Your task to perform on an android device: Open Google Maps and go to "Timeline" Image 0: 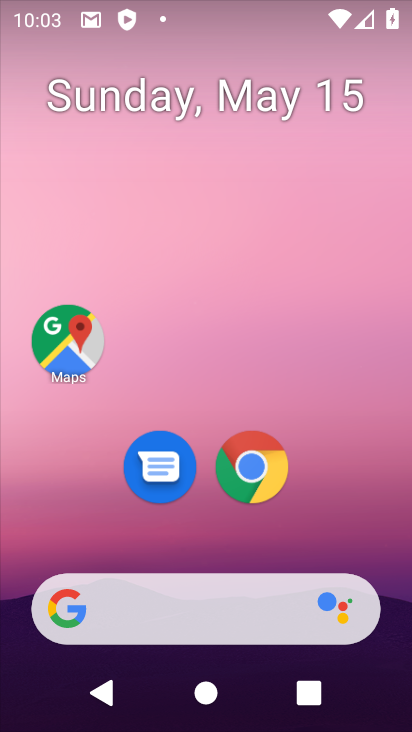
Step 0: drag from (207, 572) to (216, 21)
Your task to perform on an android device: Open Google Maps and go to "Timeline" Image 1: 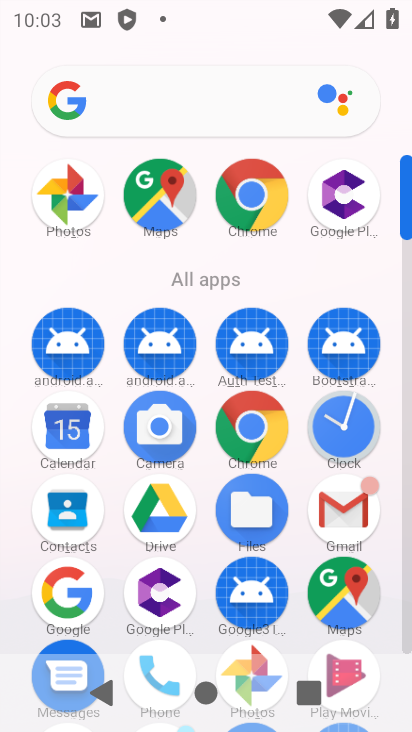
Step 1: click (344, 597)
Your task to perform on an android device: Open Google Maps and go to "Timeline" Image 2: 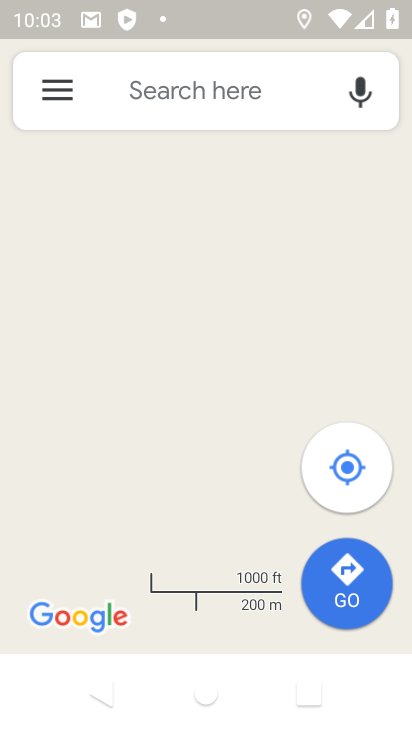
Step 2: click (46, 96)
Your task to perform on an android device: Open Google Maps and go to "Timeline" Image 3: 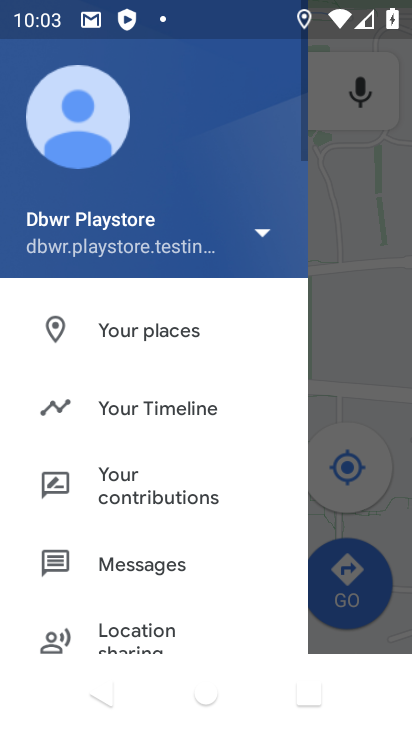
Step 3: click (147, 417)
Your task to perform on an android device: Open Google Maps and go to "Timeline" Image 4: 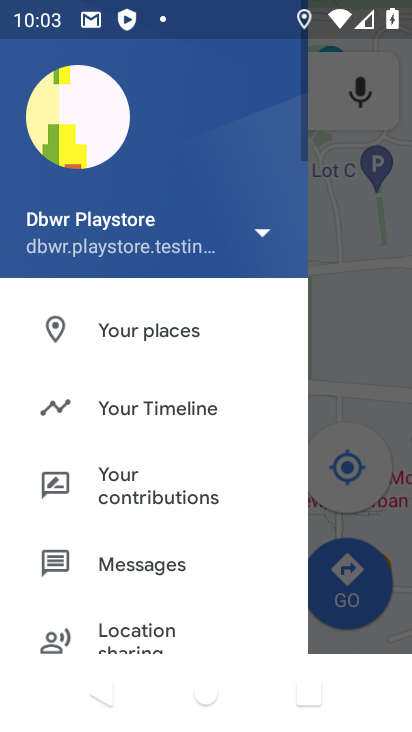
Step 4: click (203, 401)
Your task to perform on an android device: Open Google Maps and go to "Timeline" Image 5: 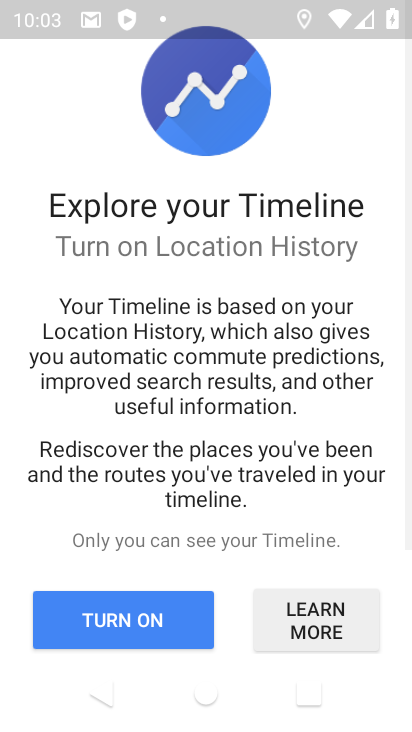
Step 5: click (128, 638)
Your task to perform on an android device: Open Google Maps and go to "Timeline" Image 6: 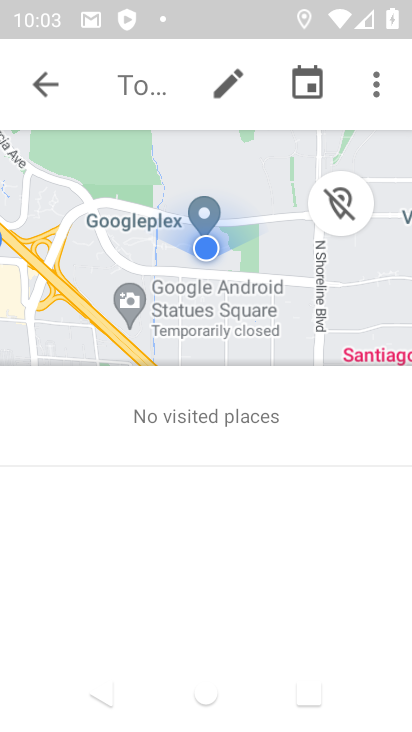
Step 6: drag from (189, 501) to (233, 181)
Your task to perform on an android device: Open Google Maps and go to "Timeline" Image 7: 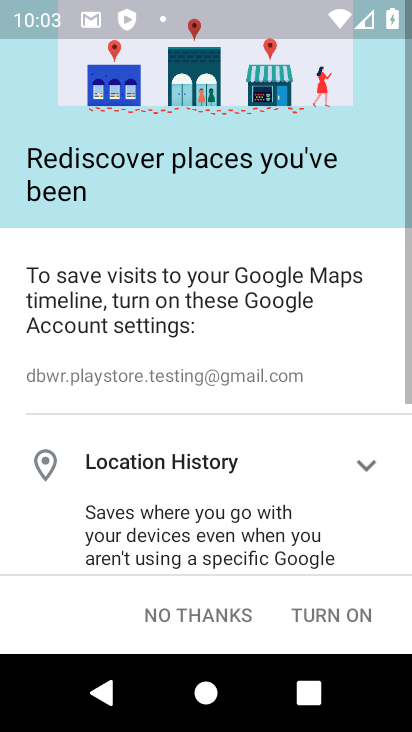
Step 7: drag from (247, 568) to (322, 152)
Your task to perform on an android device: Open Google Maps and go to "Timeline" Image 8: 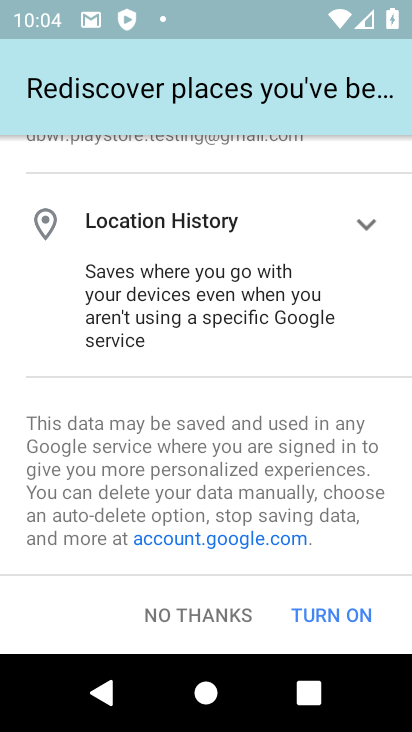
Step 8: click (342, 621)
Your task to perform on an android device: Open Google Maps and go to "Timeline" Image 9: 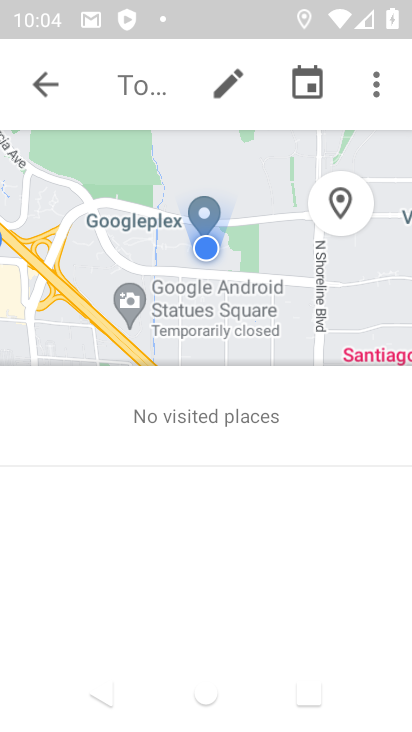
Step 9: task complete